Your task to perform on an android device: Empty the shopping cart on ebay.com. Image 0: 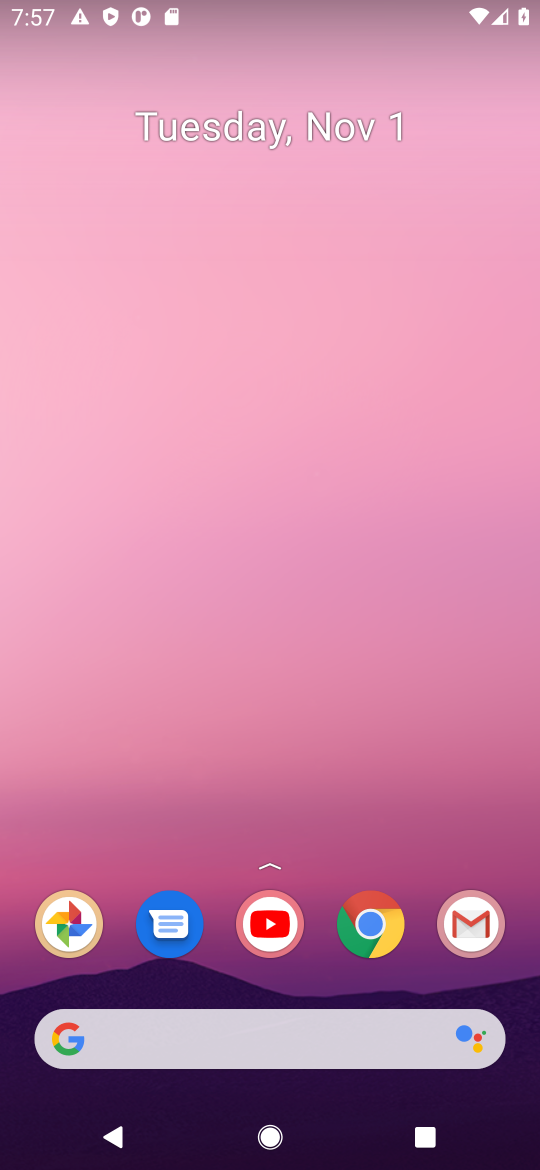
Step 0: click (101, 1029)
Your task to perform on an android device: Empty the shopping cart on ebay.com. Image 1: 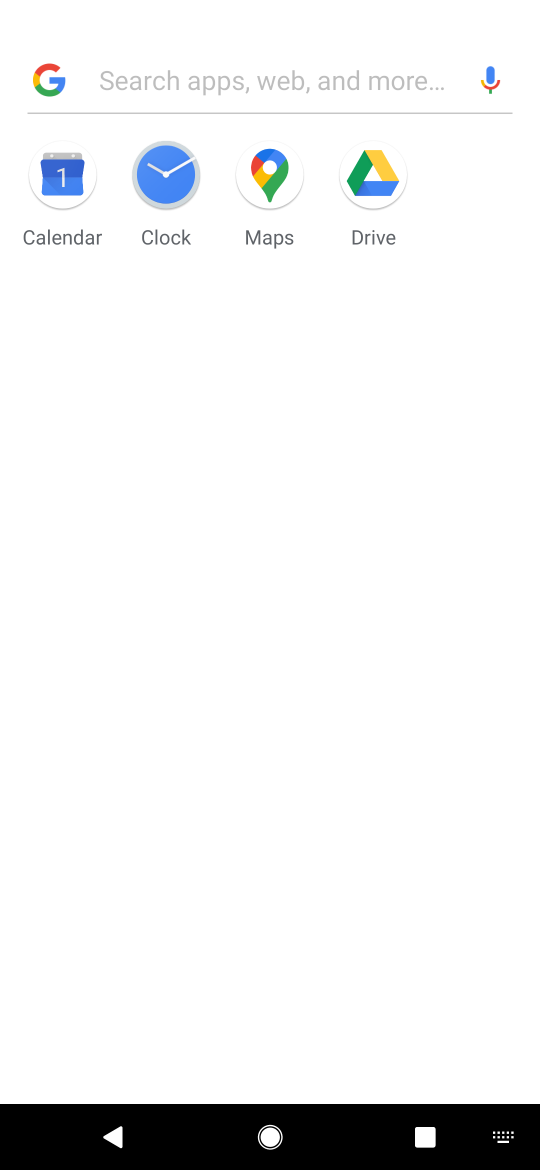
Step 1: type "ebay.com"
Your task to perform on an android device: Empty the shopping cart on ebay.com. Image 2: 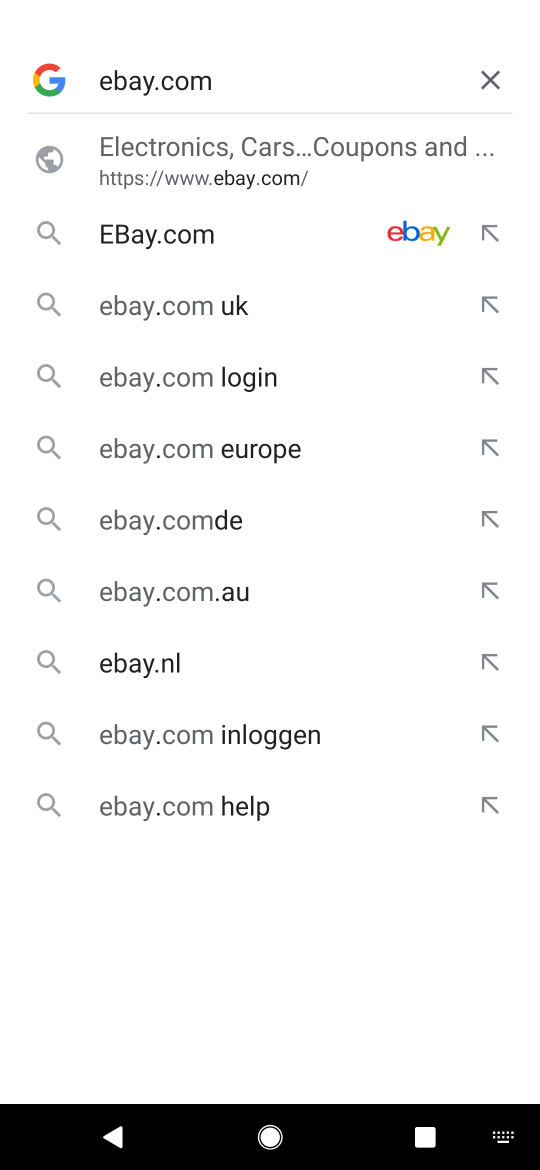
Step 2: press enter
Your task to perform on an android device: Empty the shopping cart on ebay.com. Image 3: 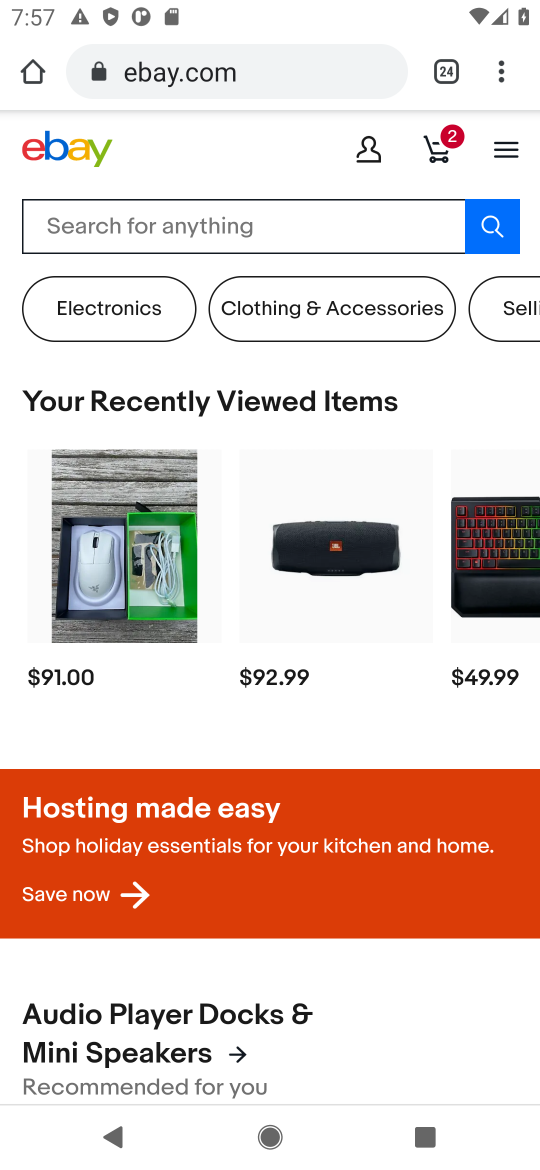
Step 3: click (443, 141)
Your task to perform on an android device: Empty the shopping cart on ebay.com. Image 4: 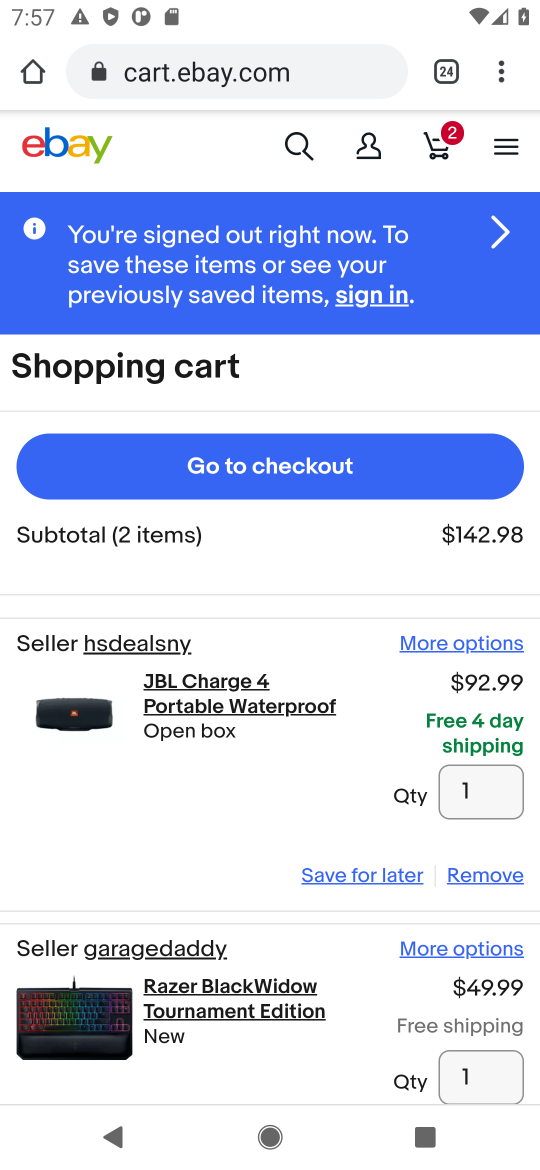
Step 4: click (487, 870)
Your task to perform on an android device: Empty the shopping cart on ebay.com. Image 5: 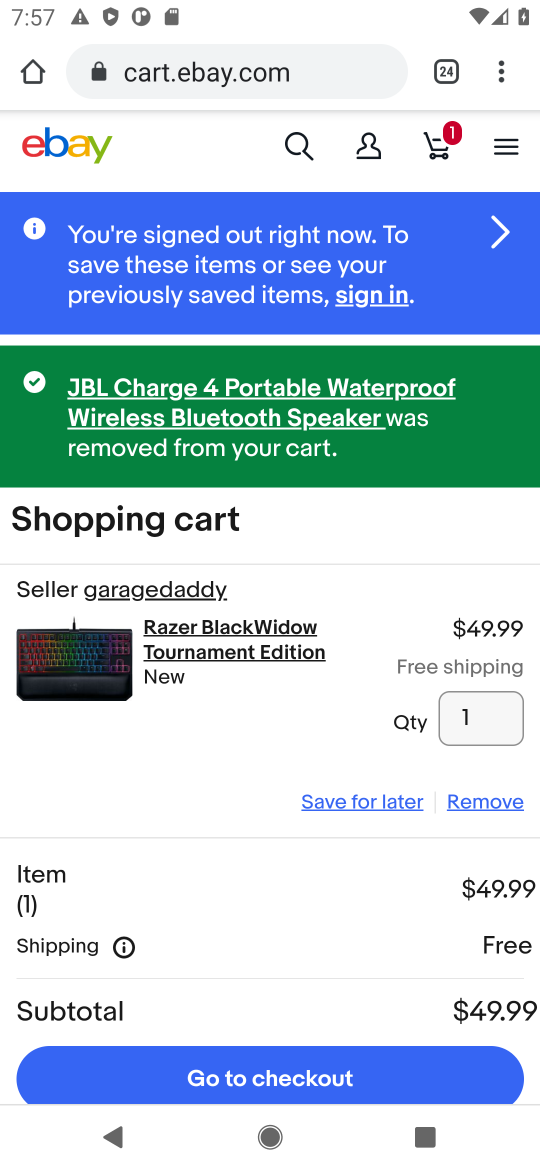
Step 5: click (487, 796)
Your task to perform on an android device: Empty the shopping cart on ebay.com. Image 6: 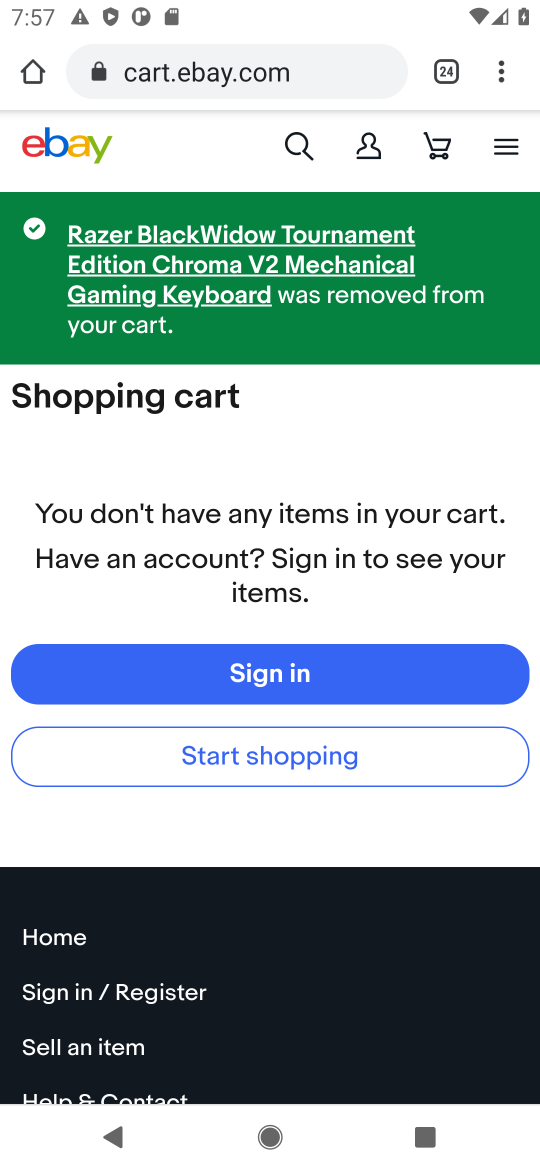
Step 6: task complete